Your task to perform on an android device: Is it going to rain today? Image 0: 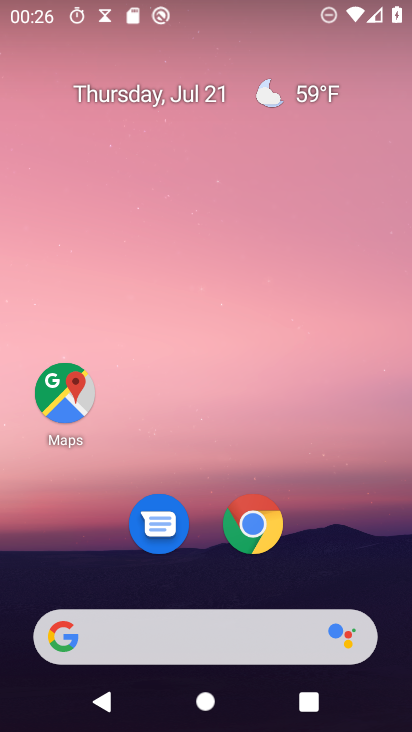
Step 0: press home button
Your task to perform on an android device: Is it going to rain today? Image 1: 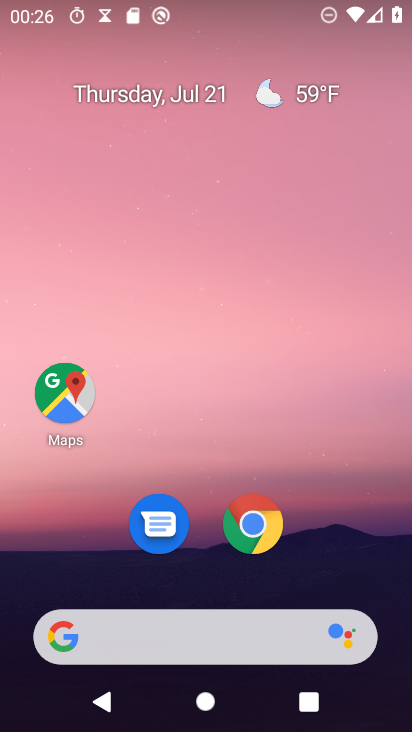
Step 1: click (143, 639)
Your task to perform on an android device: Is it going to rain today? Image 2: 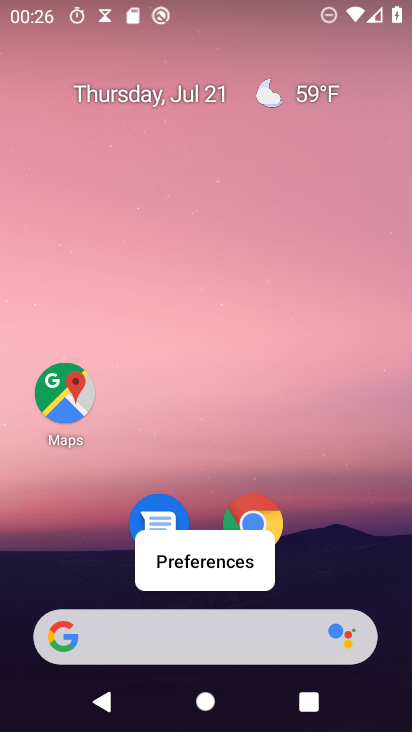
Step 2: click (146, 637)
Your task to perform on an android device: Is it going to rain today? Image 3: 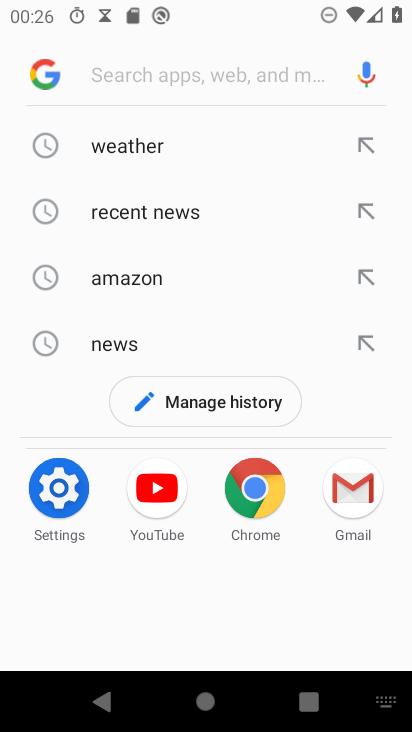
Step 3: click (134, 144)
Your task to perform on an android device: Is it going to rain today? Image 4: 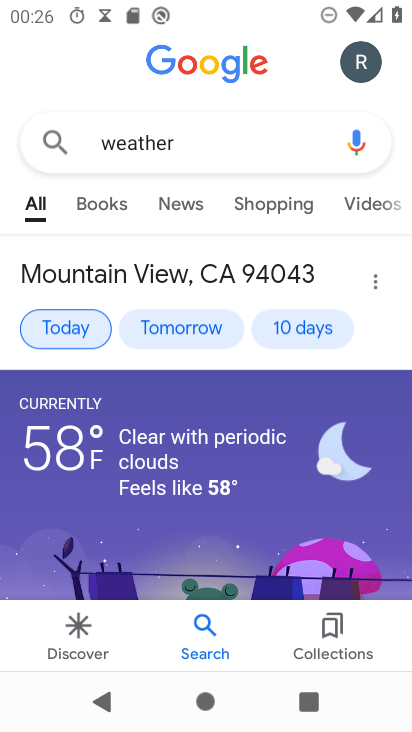
Step 4: task complete